Your task to perform on an android device: Go to CNN.com Image 0: 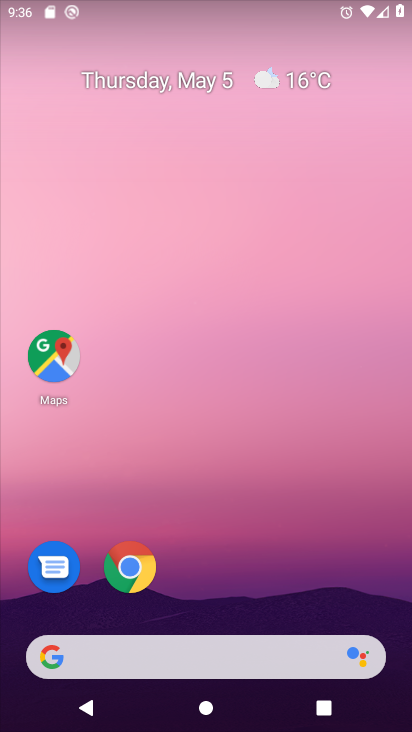
Step 0: click (206, 654)
Your task to perform on an android device: Go to CNN.com Image 1: 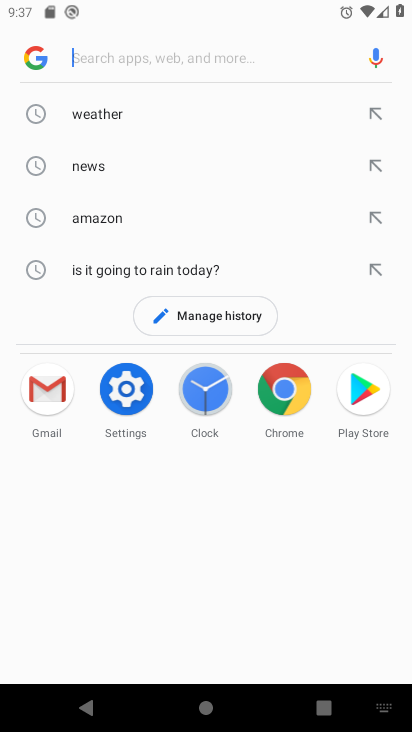
Step 1: type "cnn.com"
Your task to perform on an android device: Go to CNN.com Image 2: 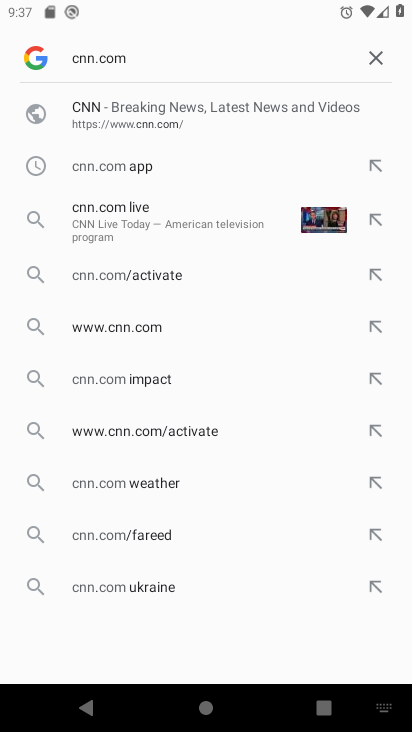
Step 2: click (174, 105)
Your task to perform on an android device: Go to CNN.com Image 3: 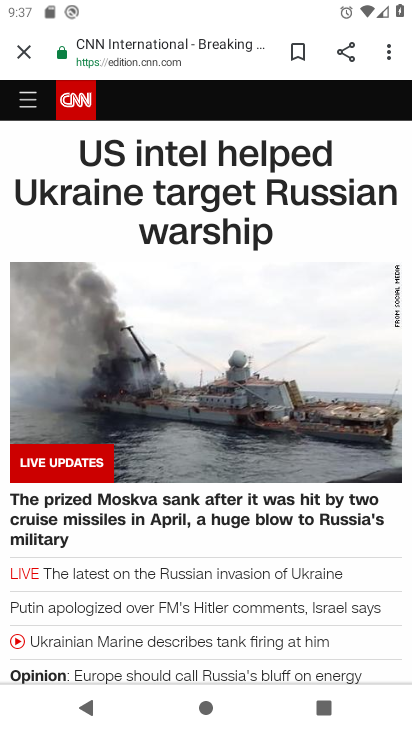
Step 3: task complete